Your task to perform on an android device: open a new tab in the chrome app Image 0: 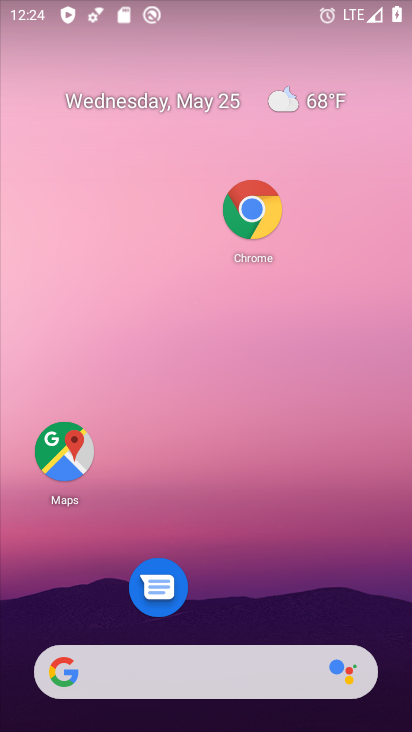
Step 0: click (248, 202)
Your task to perform on an android device: open a new tab in the chrome app Image 1: 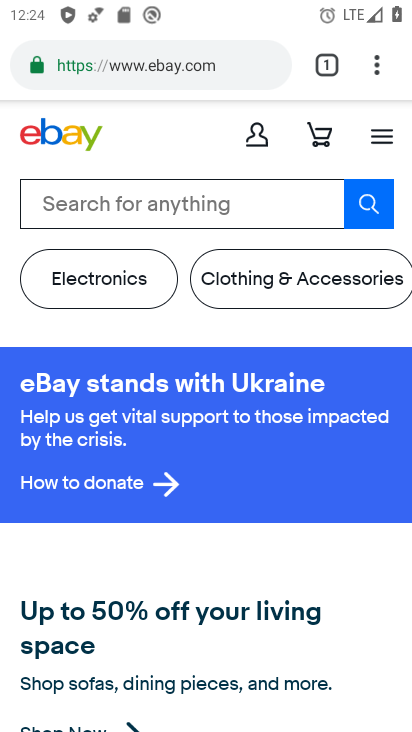
Step 1: click (325, 50)
Your task to perform on an android device: open a new tab in the chrome app Image 2: 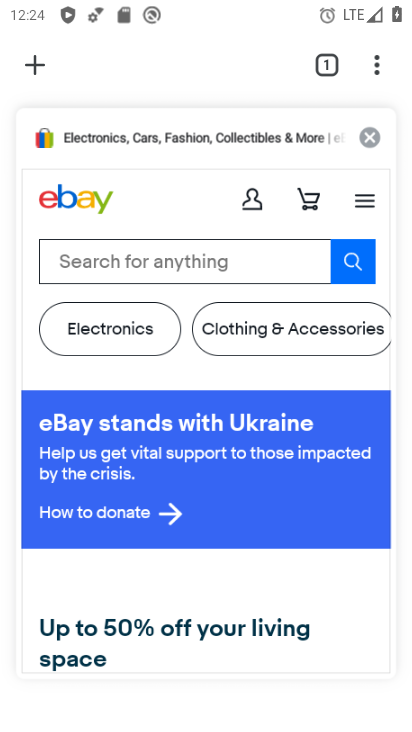
Step 2: click (36, 68)
Your task to perform on an android device: open a new tab in the chrome app Image 3: 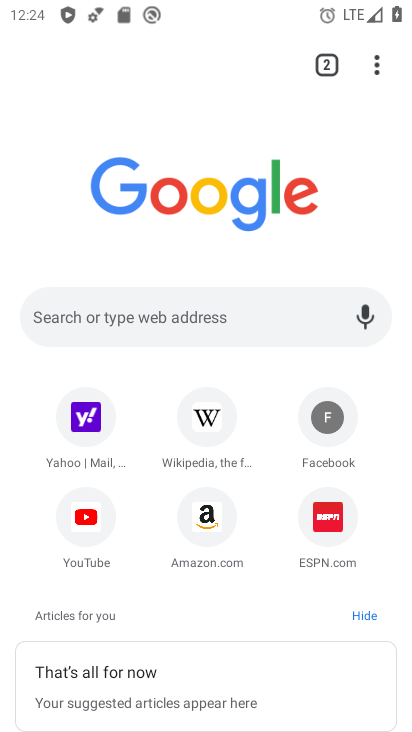
Step 3: task complete